Your task to perform on an android device: change the clock display to digital Image 0: 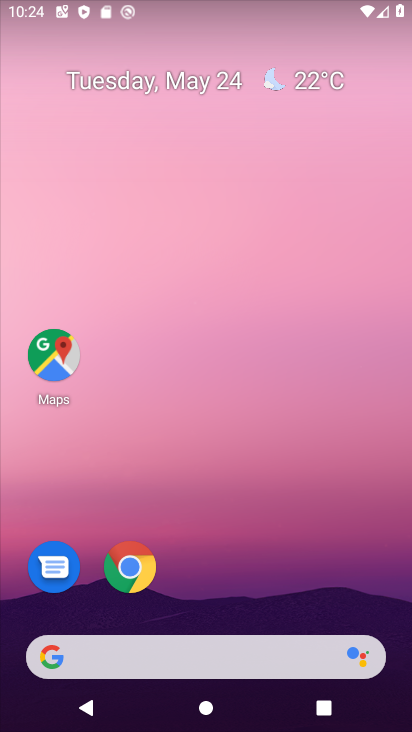
Step 0: drag from (185, 609) to (163, 257)
Your task to perform on an android device: change the clock display to digital Image 1: 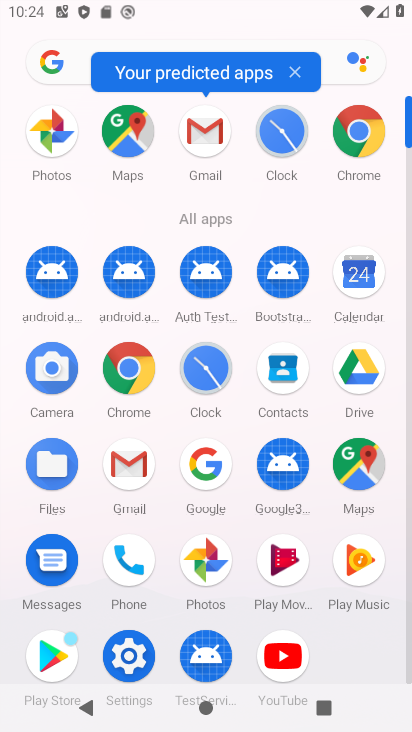
Step 1: click (290, 134)
Your task to perform on an android device: change the clock display to digital Image 2: 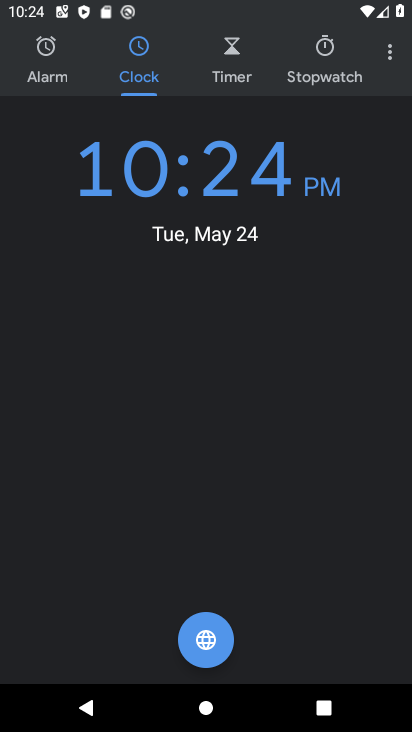
Step 2: click (400, 55)
Your task to perform on an android device: change the clock display to digital Image 3: 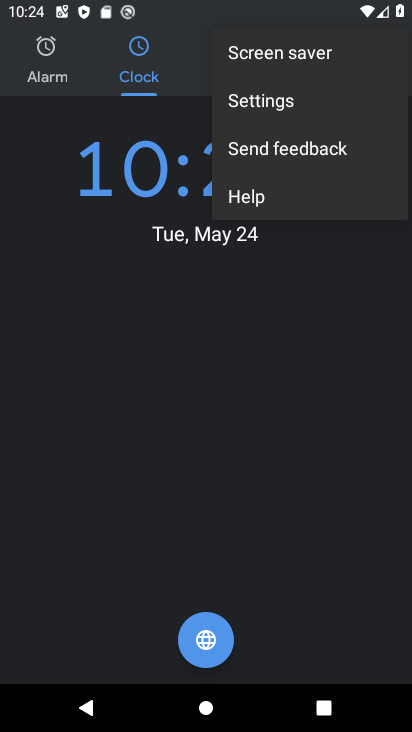
Step 3: click (284, 106)
Your task to perform on an android device: change the clock display to digital Image 4: 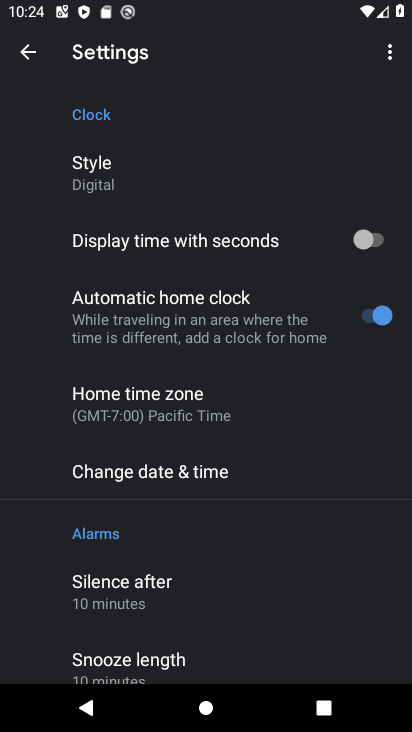
Step 4: task complete